Your task to perform on an android device: Open accessibility settings Image 0: 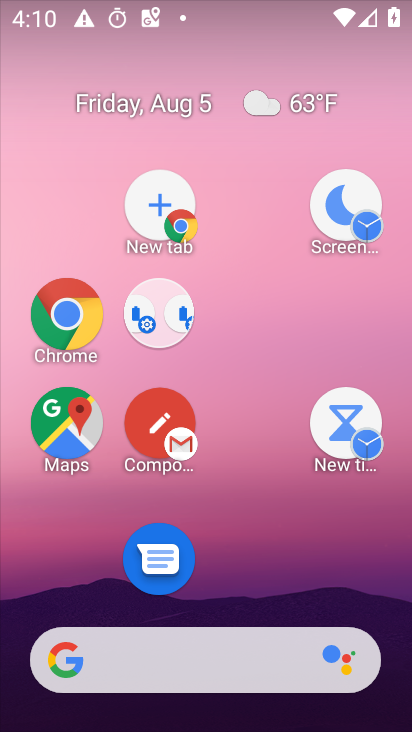
Step 0: drag from (242, 679) to (200, 260)
Your task to perform on an android device: Open accessibility settings Image 1: 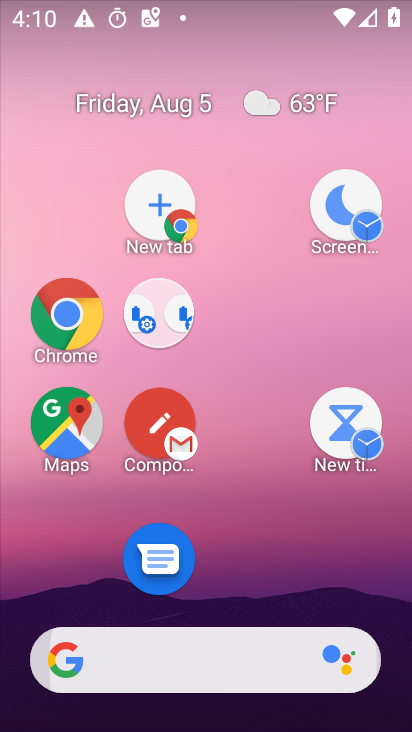
Step 1: drag from (268, 650) to (271, 263)
Your task to perform on an android device: Open accessibility settings Image 2: 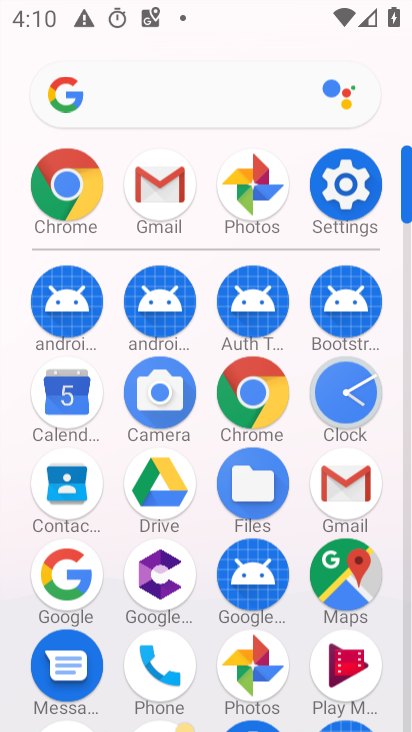
Step 2: drag from (302, 554) to (203, 210)
Your task to perform on an android device: Open accessibility settings Image 3: 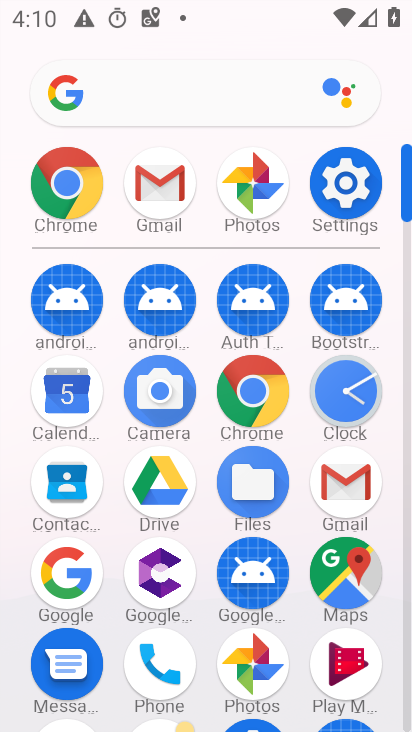
Step 3: click (344, 175)
Your task to perform on an android device: Open accessibility settings Image 4: 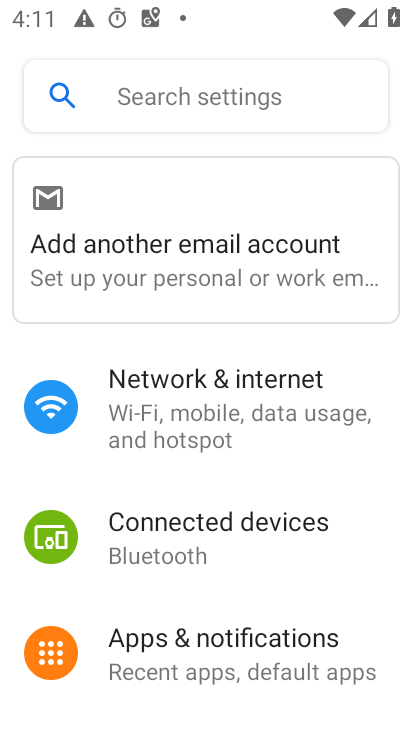
Step 4: drag from (215, 542) to (195, 246)
Your task to perform on an android device: Open accessibility settings Image 5: 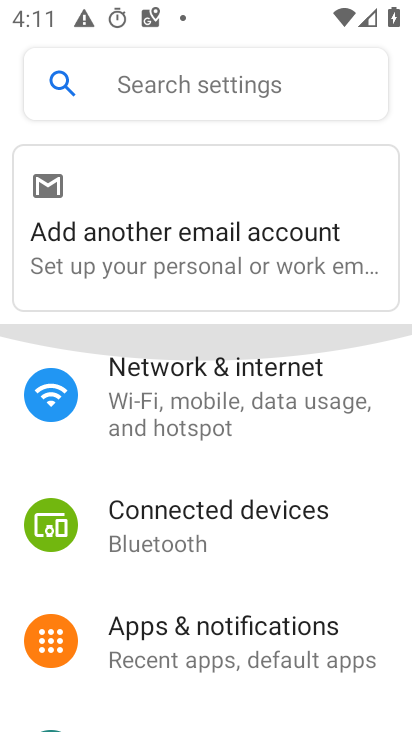
Step 5: drag from (175, 559) to (152, 307)
Your task to perform on an android device: Open accessibility settings Image 6: 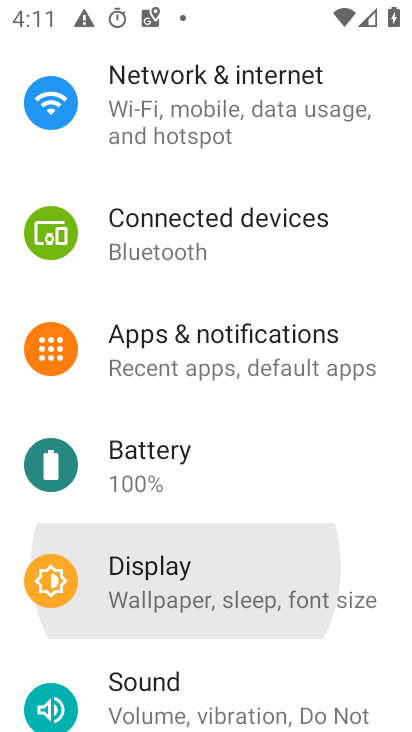
Step 6: drag from (150, 644) to (142, 301)
Your task to perform on an android device: Open accessibility settings Image 7: 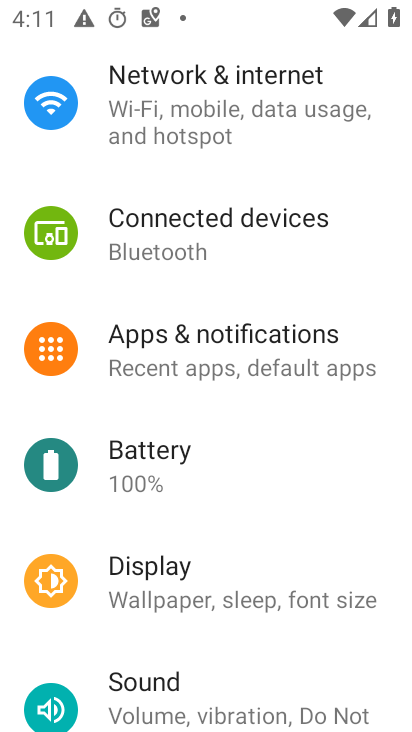
Step 7: drag from (176, 578) to (203, 402)
Your task to perform on an android device: Open accessibility settings Image 8: 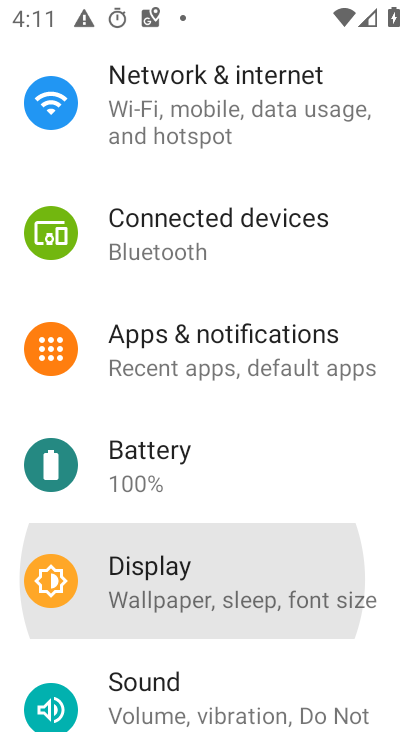
Step 8: drag from (205, 516) to (208, 330)
Your task to perform on an android device: Open accessibility settings Image 9: 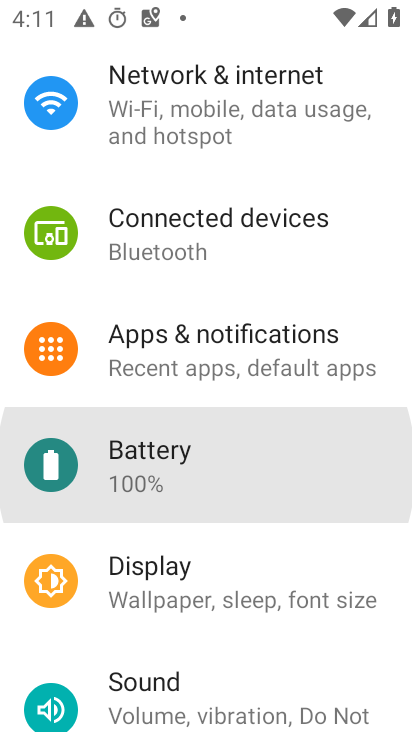
Step 9: drag from (235, 662) to (222, 384)
Your task to perform on an android device: Open accessibility settings Image 10: 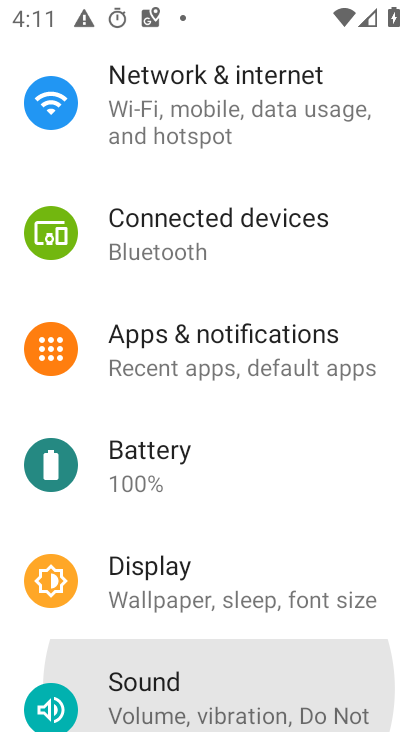
Step 10: drag from (273, 599) to (258, 308)
Your task to perform on an android device: Open accessibility settings Image 11: 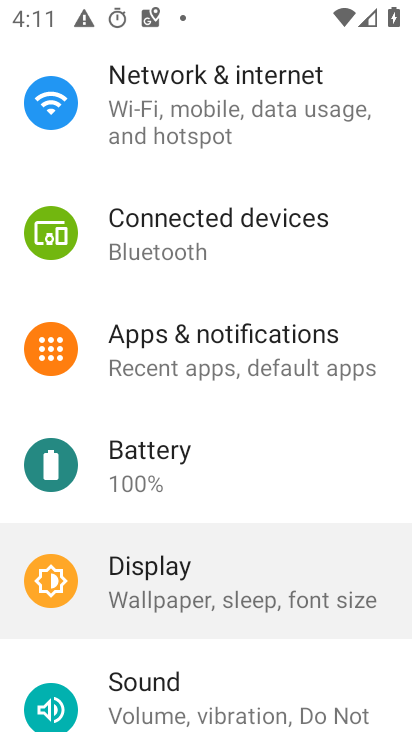
Step 11: drag from (262, 522) to (258, 332)
Your task to perform on an android device: Open accessibility settings Image 12: 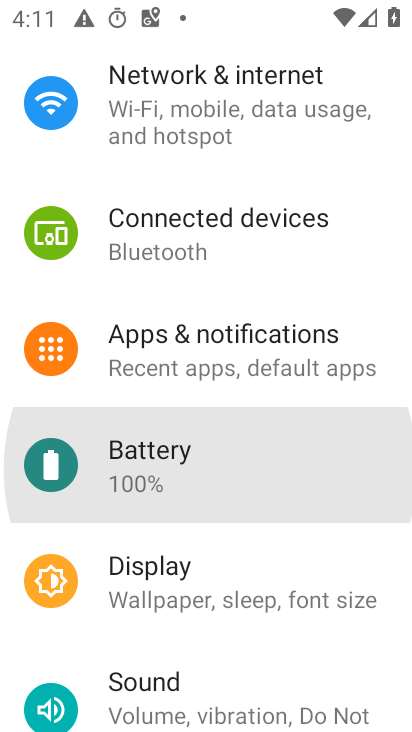
Step 12: drag from (266, 530) to (275, 296)
Your task to perform on an android device: Open accessibility settings Image 13: 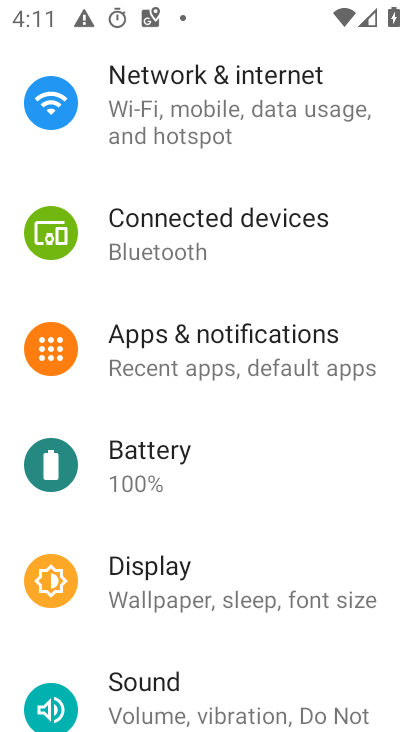
Step 13: drag from (162, 643) to (154, 350)
Your task to perform on an android device: Open accessibility settings Image 14: 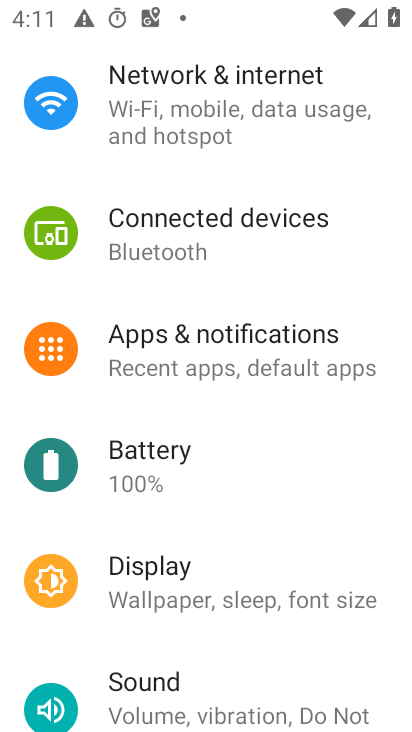
Step 14: drag from (213, 334) to (202, 423)
Your task to perform on an android device: Open accessibility settings Image 15: 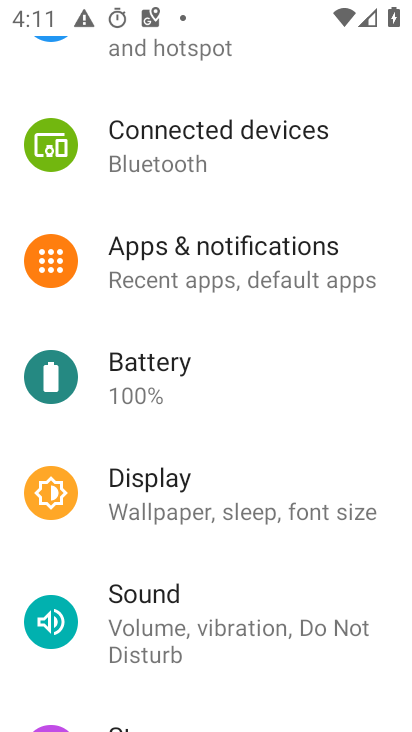
Step 15: drag from (230, 521) to (230, 234)
Your task to perform on an android device: Open accessibility settings Image 16: 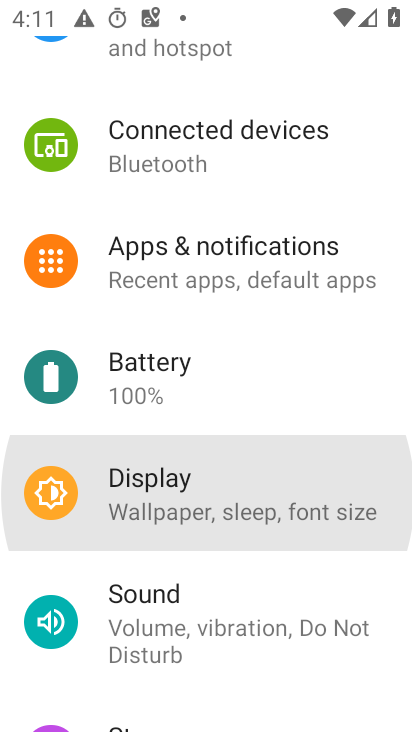
Step 16: drag from (283, 528) to (347, 165)
Your task to perform on an android device: Open accessibility settings Image 17: 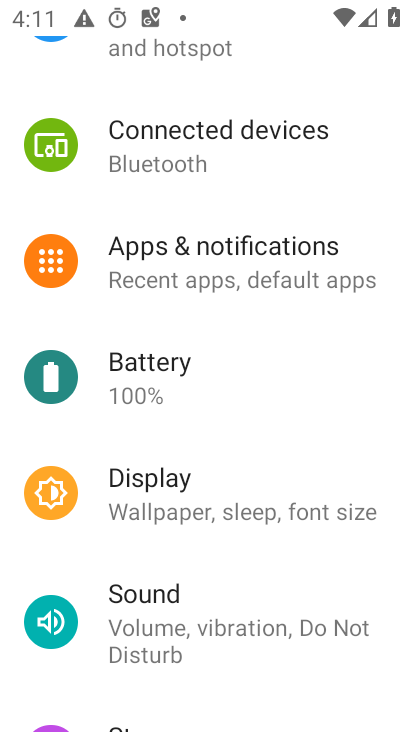
Step 17: drag from (195, 557) to (226, 187)
Your task to perform on an android device: Open accessibility settings Image 18: 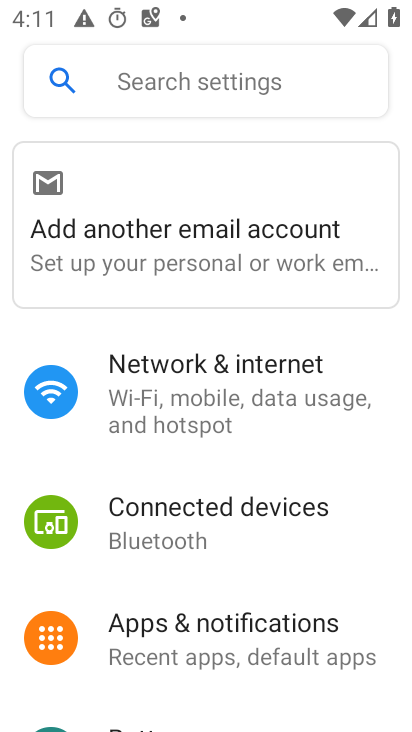
Step 18: drag from (257, 622) to (299, 250)
Your task to perform on an android device: Open accessibility settings Image 19: 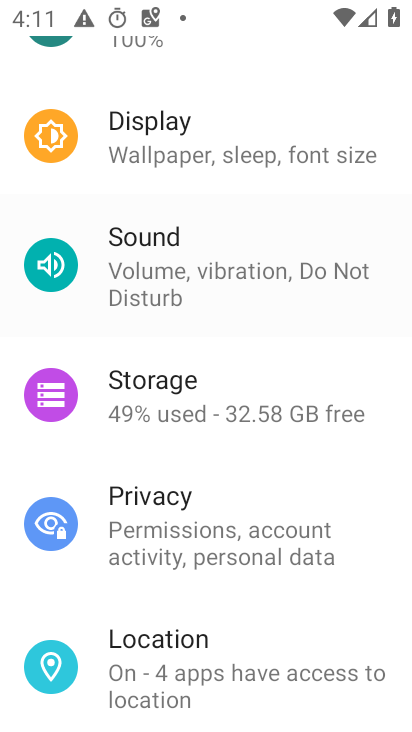
Step 19: drag from (307, 569) to (310, 281)
Your task to perform on an android device: Open accessibility settings Image 20: 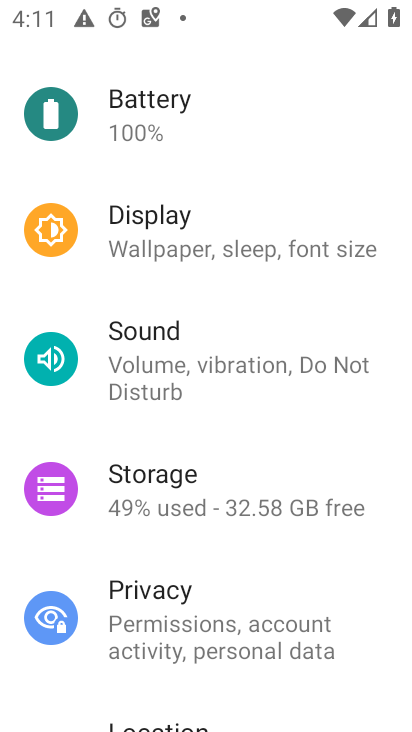
Step 20: drag from (302, 486) to (317, 261)
Your task to perform on an android device: Open accessibility settings Image 21: 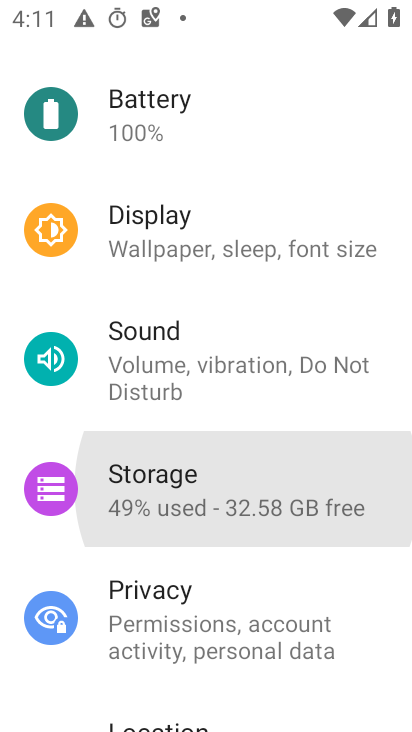
Step 21: drag from (234, 628) to (241, 221)
Your task to perform on an android device: Open accessibility settings Image 22: 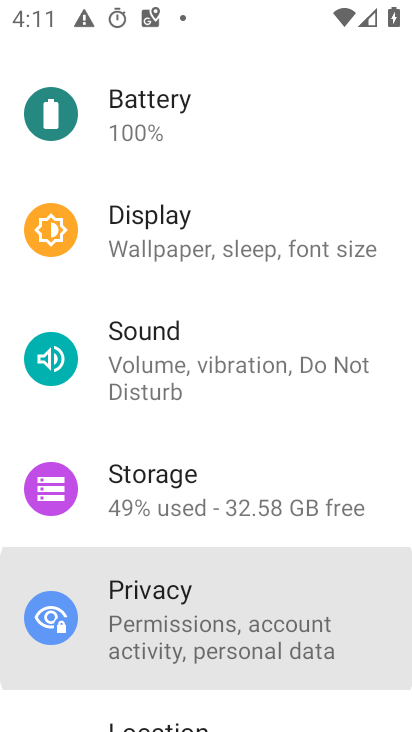
Step 22: drag from (229, 529) to (220, 171)
Your task to perform on an android device: Open accessibility settings Image 23: 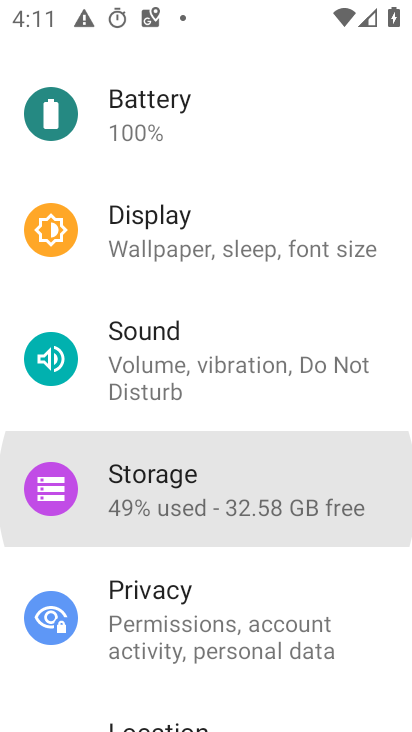
Step 23: drag from (227, 574) to (206, 156)
Your task to perform on an android device: Open accessibility settings Image 24: 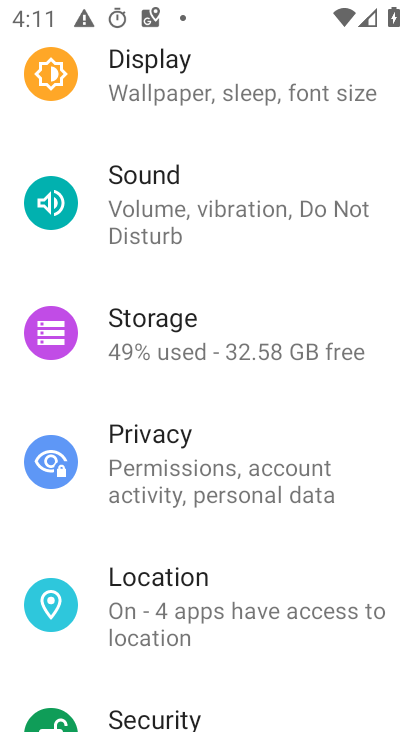
Step 24: drag from (157, 631) to (116, 246)
Your task to perform on an android device: Open accessibility settings Image 25: 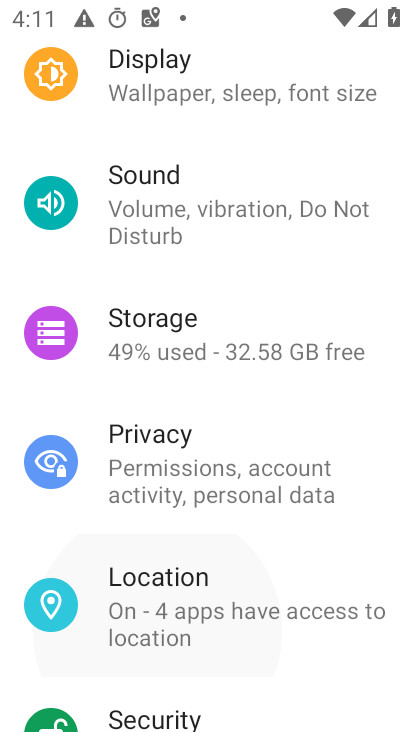
Step 25: drag from (130, 540) to (198, 251)
Your task to perform on an android device: Open accessibility settings Image 26: 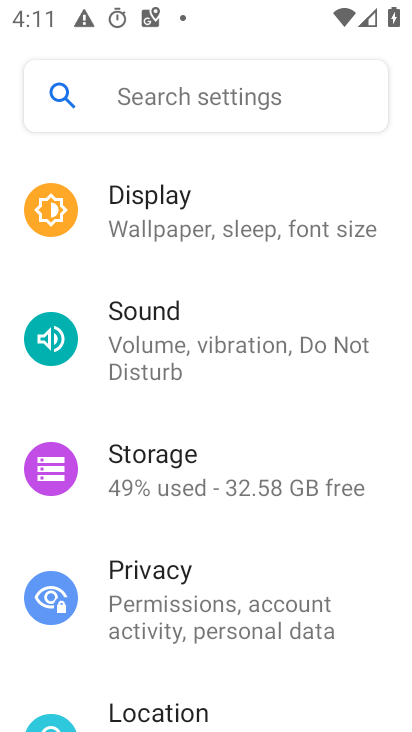
Step 26: drag from (224, 463) to (224, 196)
Your task to perform on an android device: Open accessibility settings Image 27: 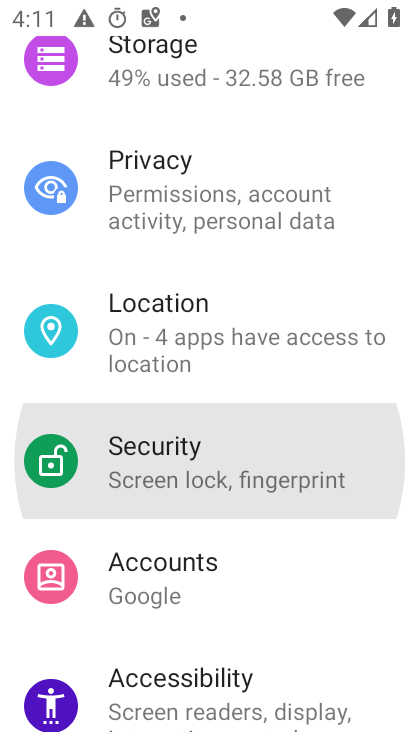
Step 27: click (220, 142)
Your task to perform on an android device: Open accessibility settings Image 28: 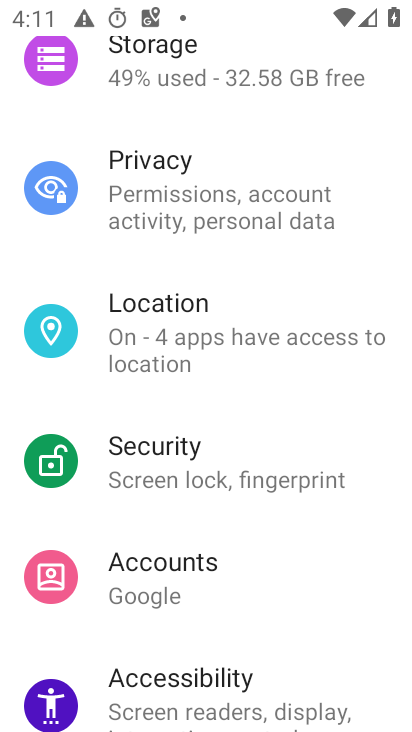
Step 28: drag from (214, 233) to (233, 690)
Your task to perform on an android device: Open accessibility settings Image 29: 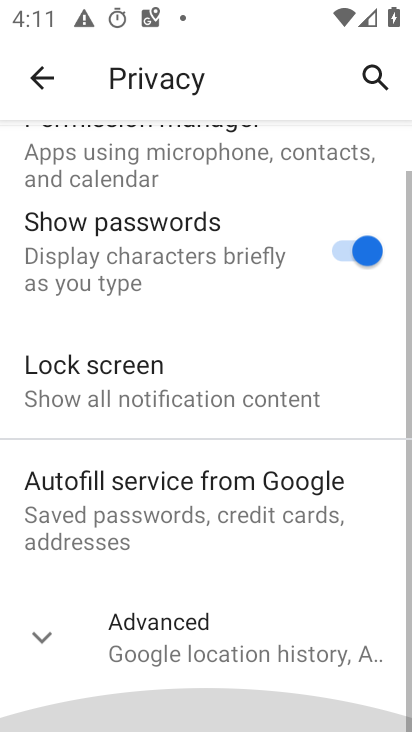
Step 29: drag from (242, 661) to (210, 198)
Your task to perform on an android device: Open accessibility settings Image 30: 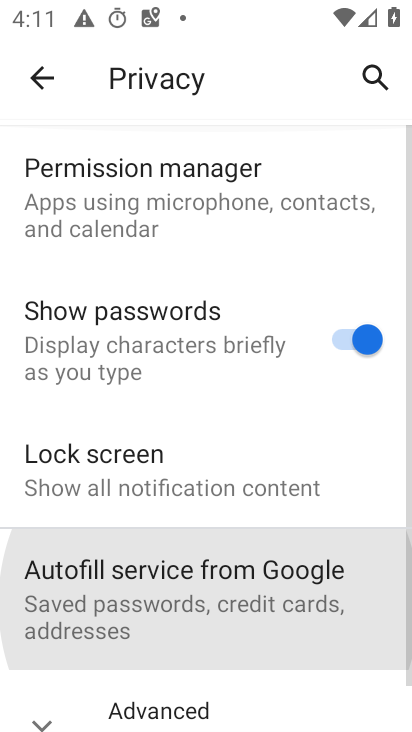
Step 30: drag from (317, 597) to (272, 207)
Your task to perform on an android device: Open accessibility settings Image 31: 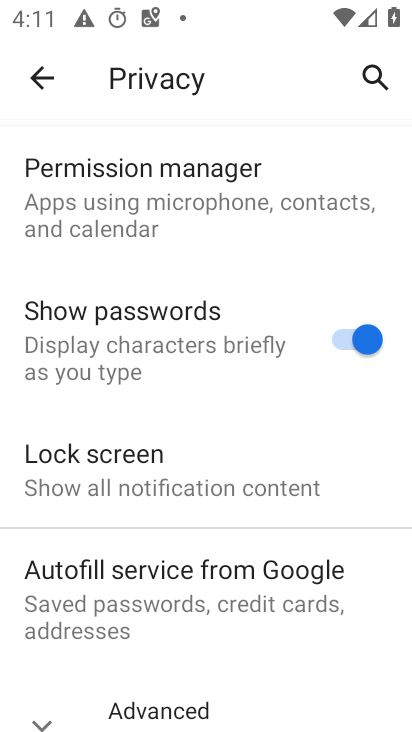
Step 31: drag from (175, 505) to (199, 381)
Your task to perform on an android device: Open accessibility settings Image 32: 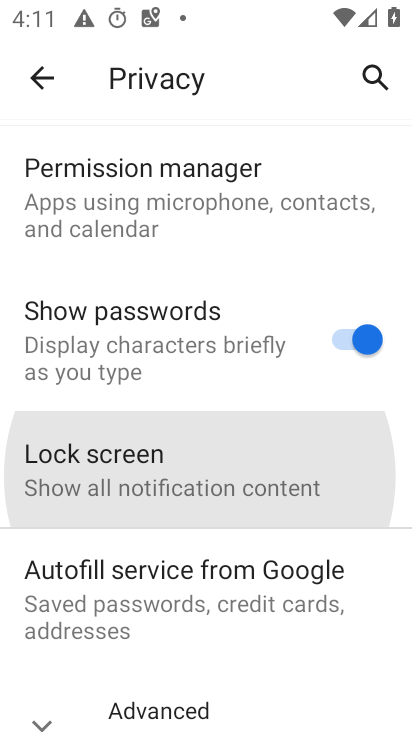
Step 32: drag from (167, 603) to (190, 310)
Your task to perform on an android device: Open accessibility settings Image 33: 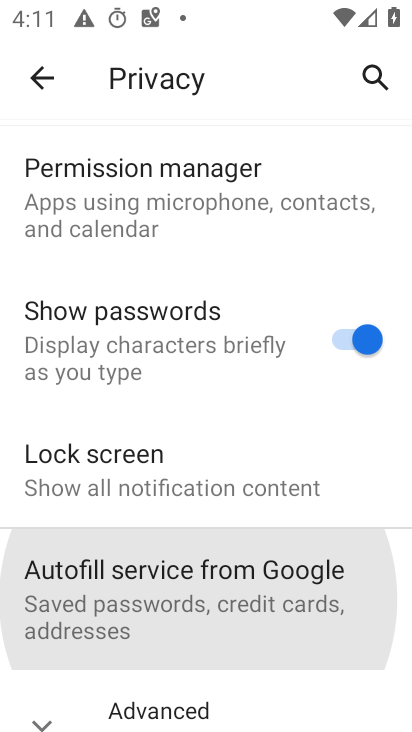
Step 33: drag from (217, 588) to (227, 326)
Your task to perform on an android device: Open accessibility settings Image 34: 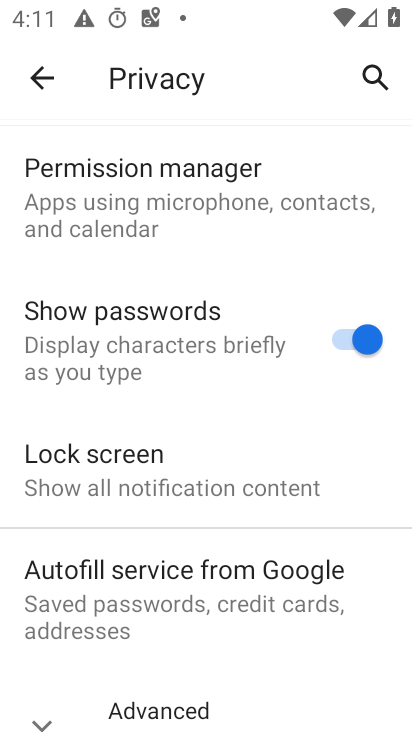
Step 34: drag from (215, 462) to (152, 367)
Your task to perform on an android device: Open accessibility settings Image 35: 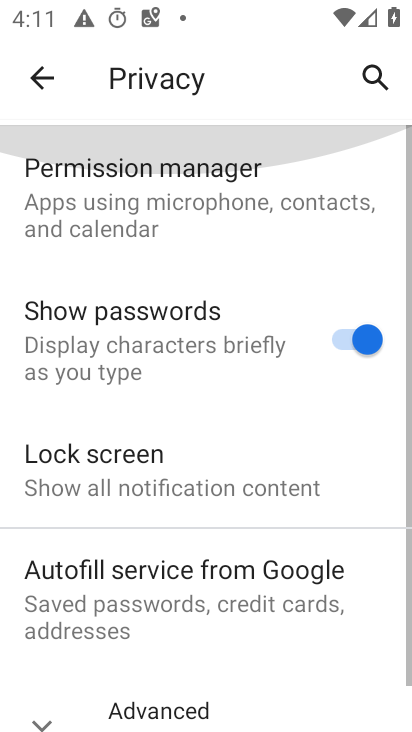
Step 35: drag from (187, 688) to (187, 280)
Your task to perform on an android device: Open accessibility settings Image 36: 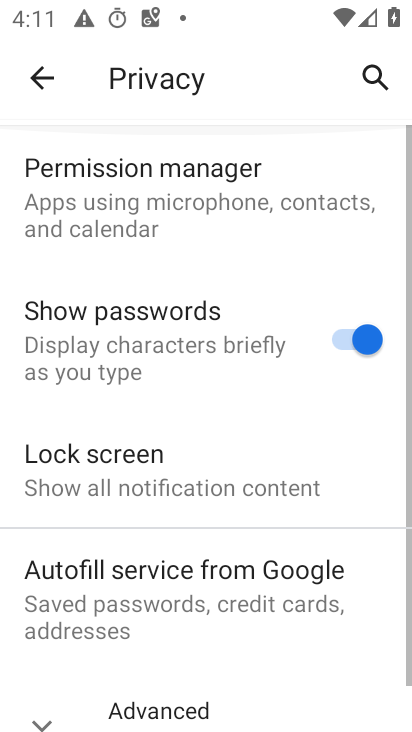
Step 36: drag from (225, 495) to (248, 324)
Your task to perform on an android device: Open accessibility settings Image 37: 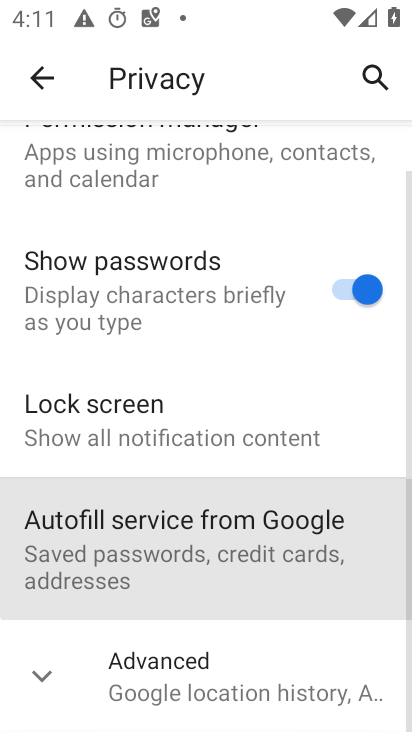
Step 37: drag from (231, 427) to (248, 266)
Your task to perform on an android device: Open accessibility settings Image 38: 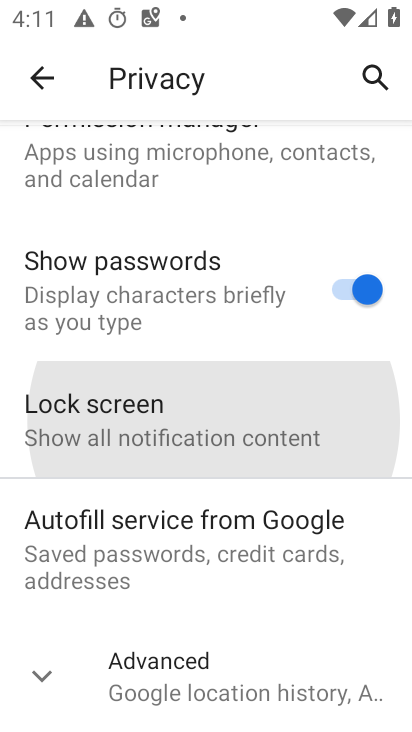
Step 38: drag from (232, 487) to (254, 308)
Your task to perform on an android device: Open accessibility settings Image 39: 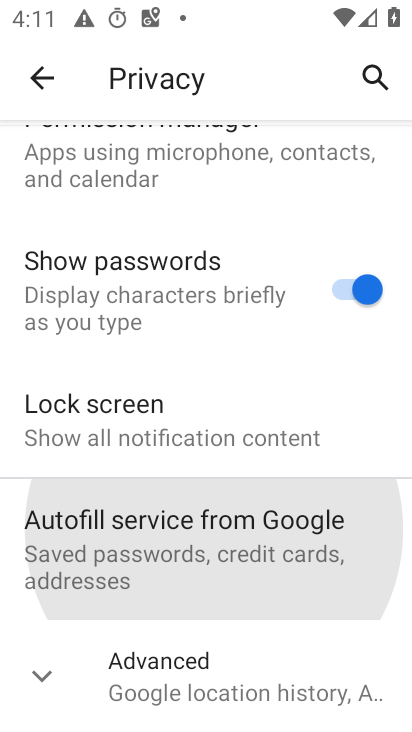
Step 39: drag from (238, 577) to (216, 346)
Your task to perform on an android device: Open accessibility settings Image 40: 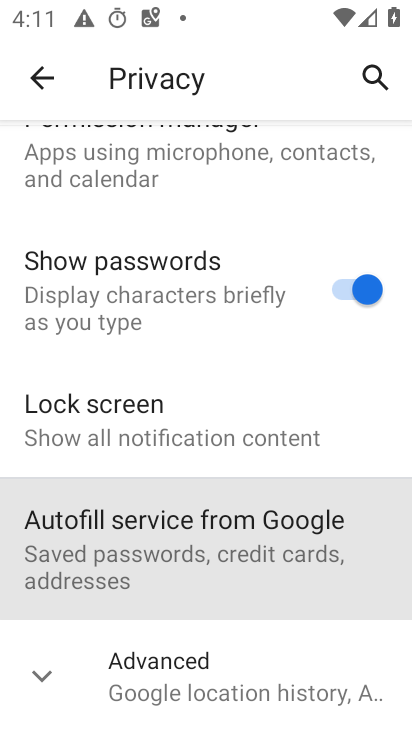
Step 40: drag from (217, 638) to (242, 374)
Your task to perform on an android device: Open accessibility settings Image 41: 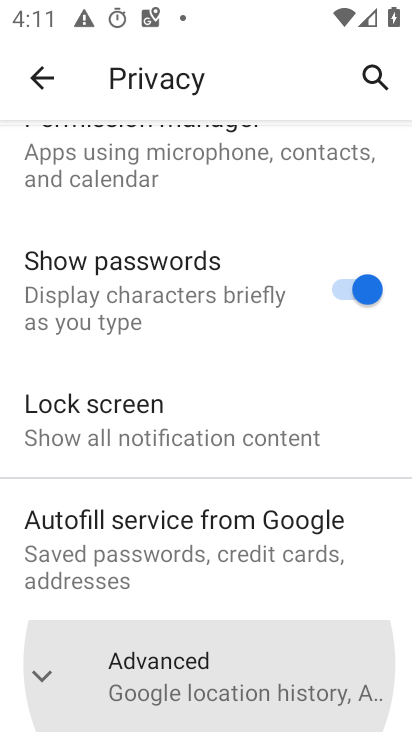
Step 41: drag from (189, 590) to (204, 537)
Your task to perform on an android device: Open accessibility settings Image 42: 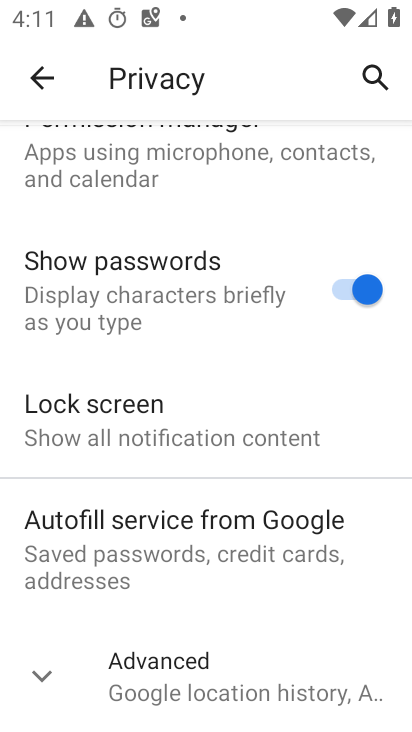
Step 42: drag from (110, 199) to (182, 601)
Your task to perform on an android device: Open accessibility settings Image 43: 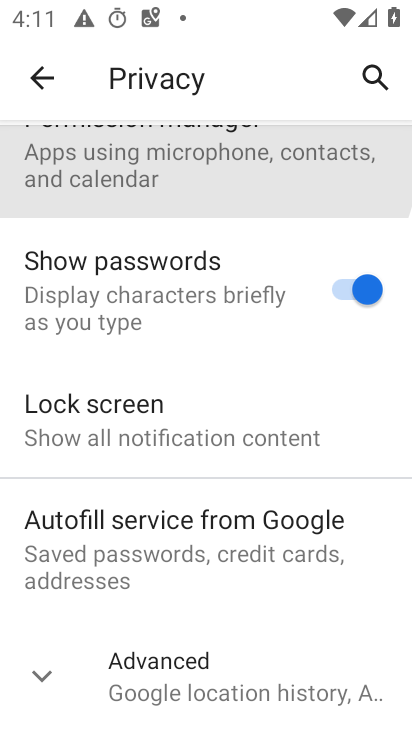
Step 43: drag from (172, 260) to (211, 636)
Your task to perform on an android device: Open accessibility settings Image 44: 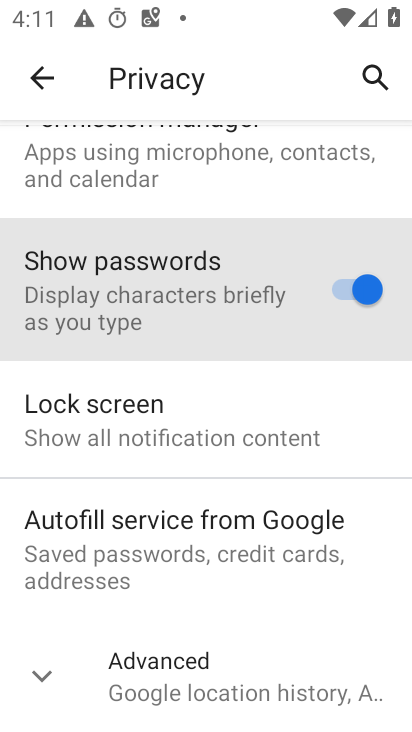
Step 44: drag from (211, 406) to (251, 692)
Your task to perform on an android device: Open accessibility settings Image 45: 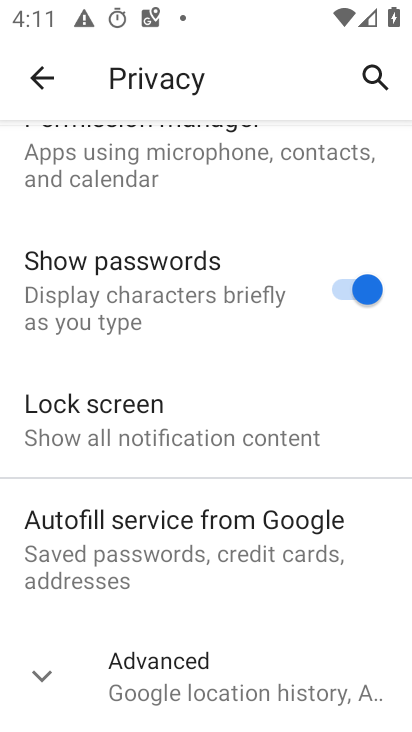
Step 45: click (41, 79)
Your task to perform on an android device: Open accessibility settings Image 46: 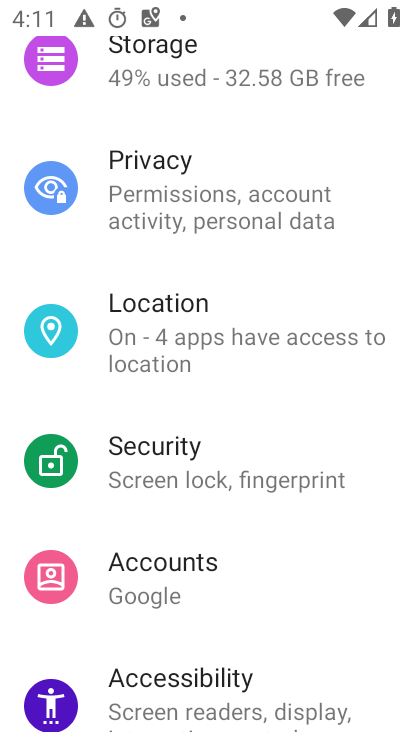
Step 46: click (201, 678)
Your task to perform on an android device: Open accessibility settings Image 47: 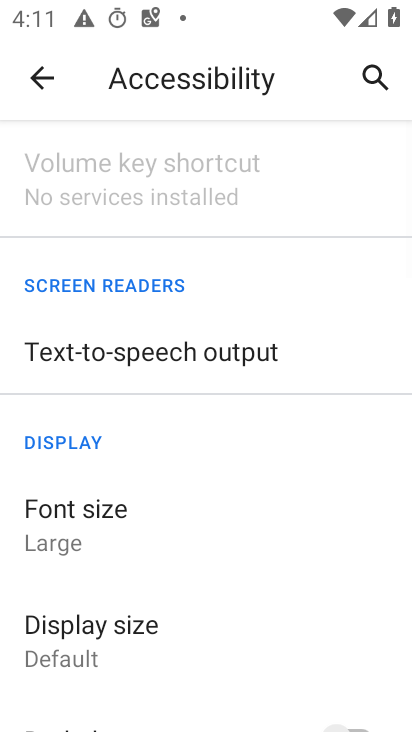
Step 47: task complete